Your task to perform on an android device: How do I get to the nearest electronics store? Image 0: 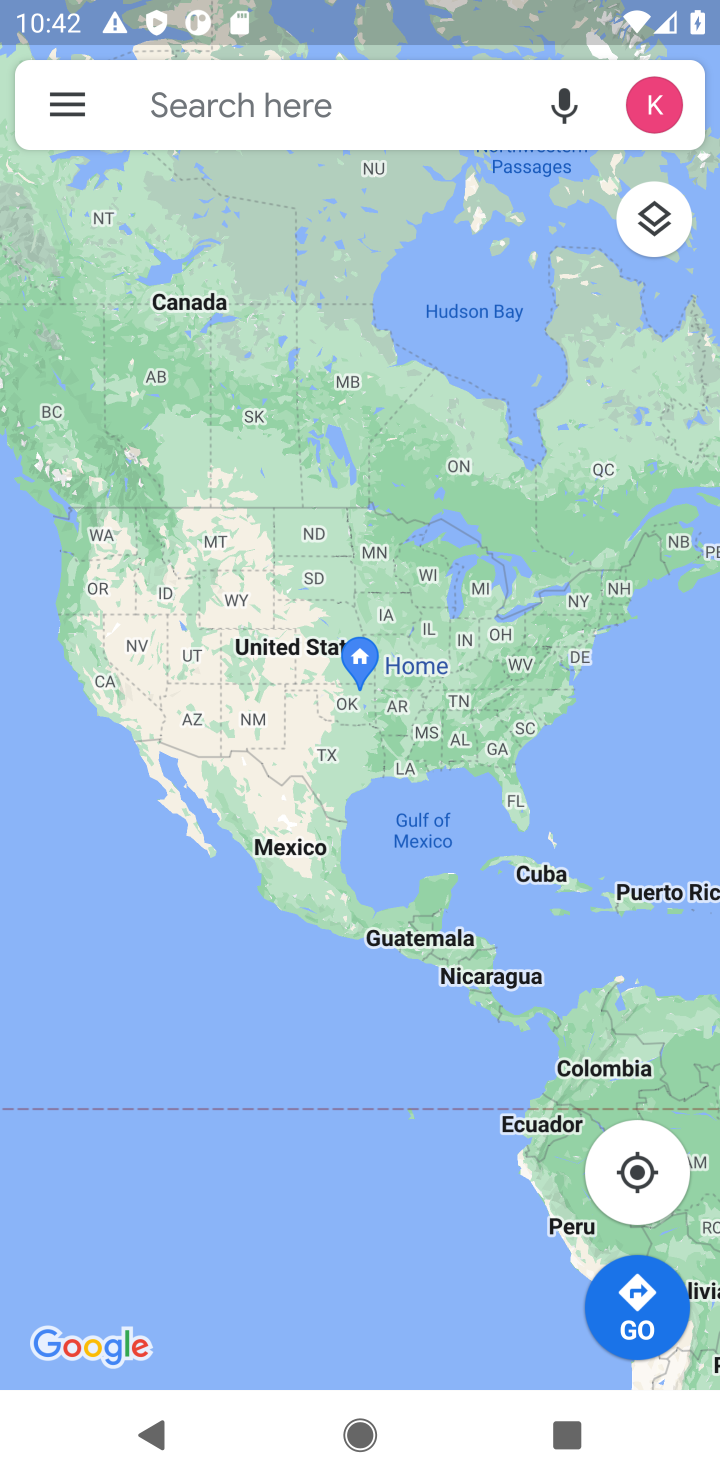
Step 0: press home button
Your task to perform on an android device: How do I get to the nearest electronics store? Image 1: 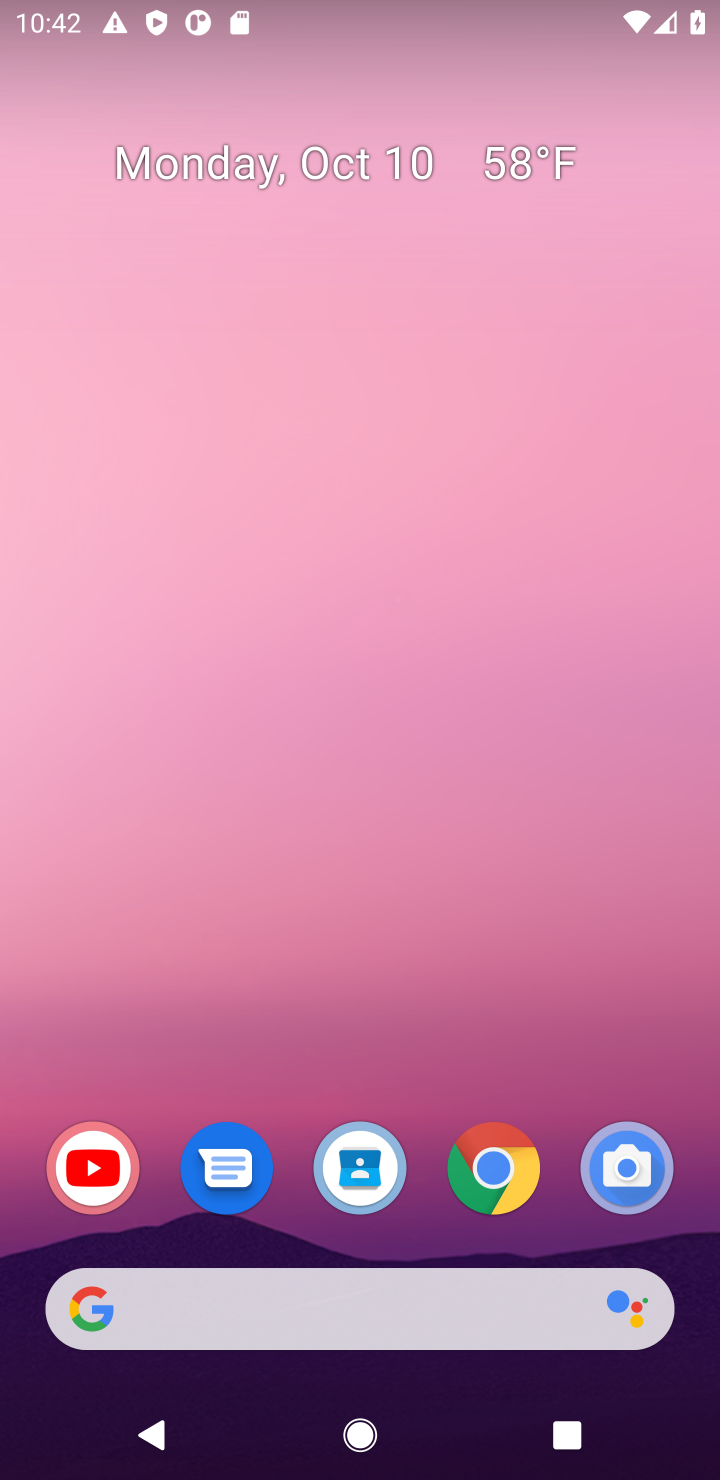
Step 1: click (288, 1302)
Your task to perform on an android device: How do I get to the nearest electronics store? Image 2: 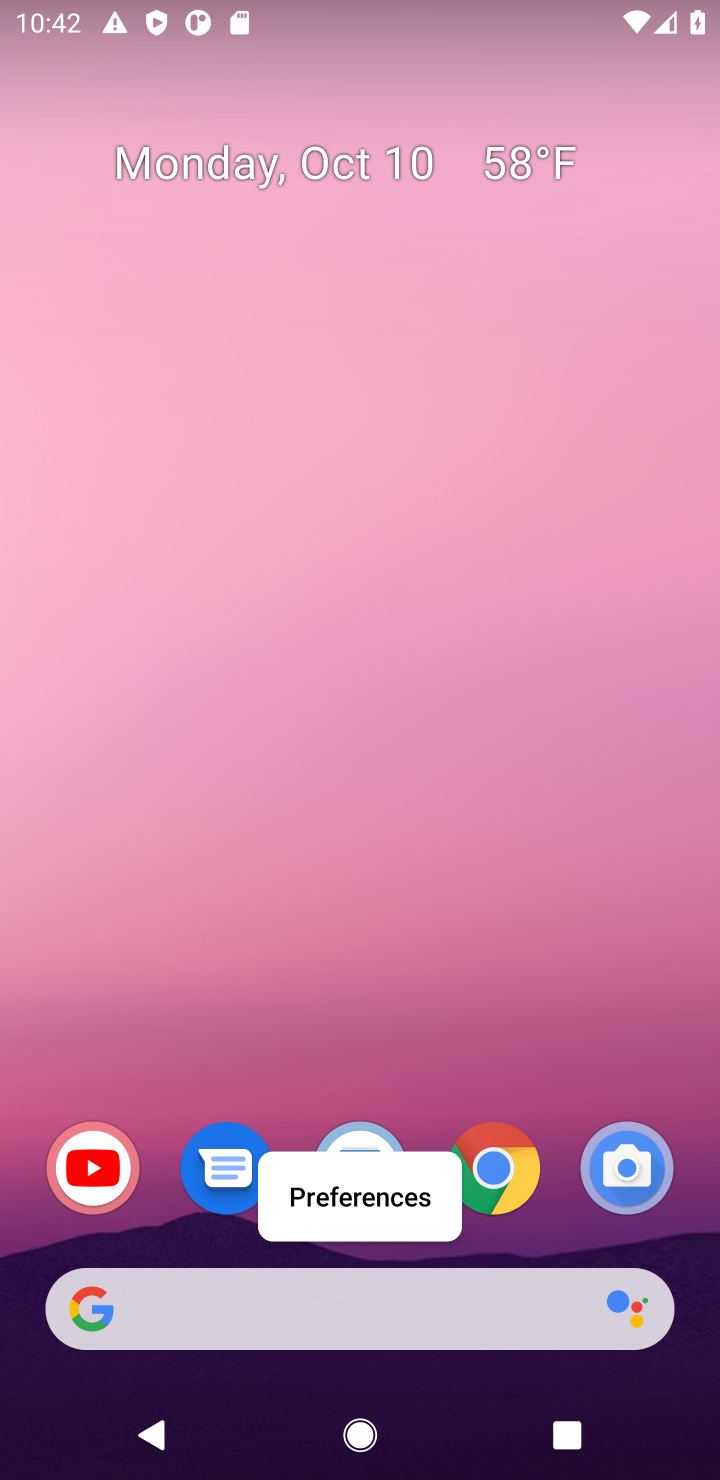
Step 2: click (226, 1308)
Your task to perform on an android device: How do I get to the nearest electronics store? Image 3: 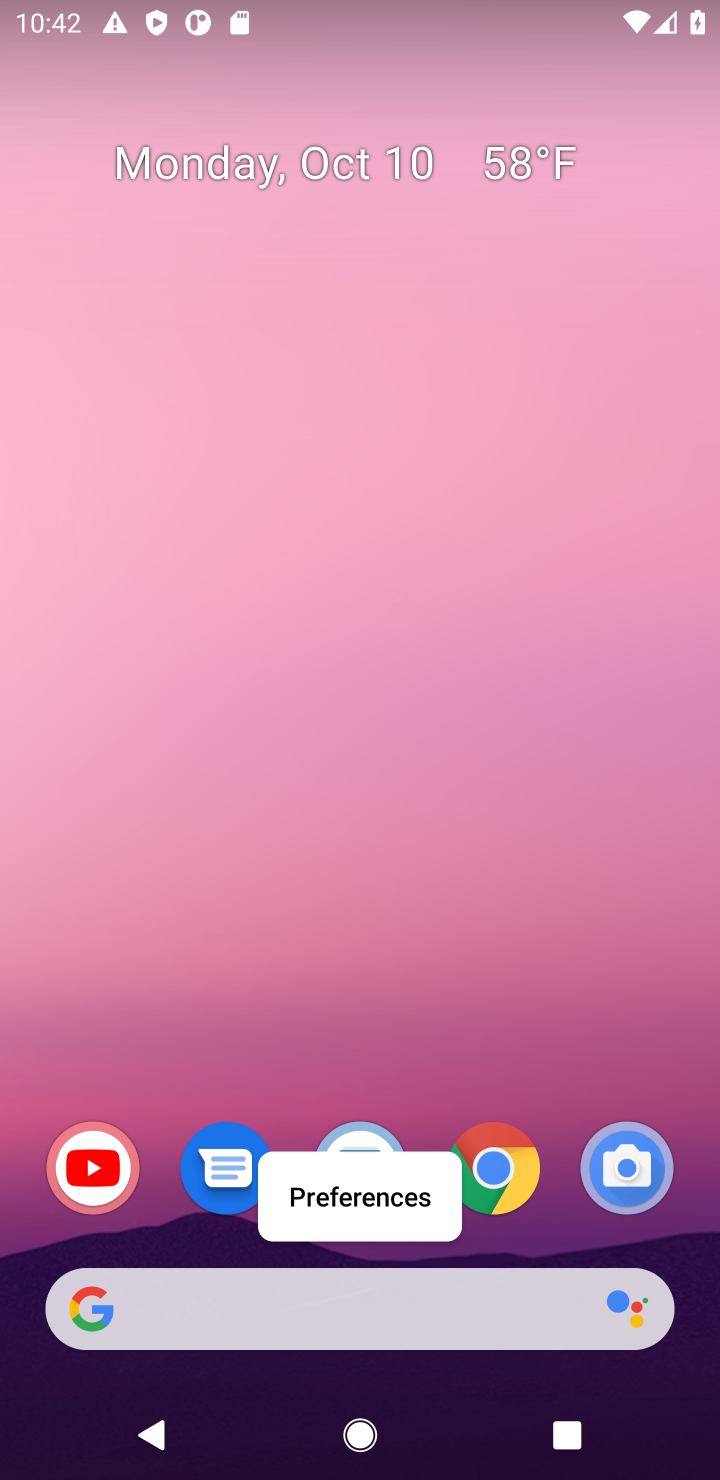
Step 3: click (235, 1313)
Your task to perform on an android device: How do I get to the nearest electronics store? Image 4: 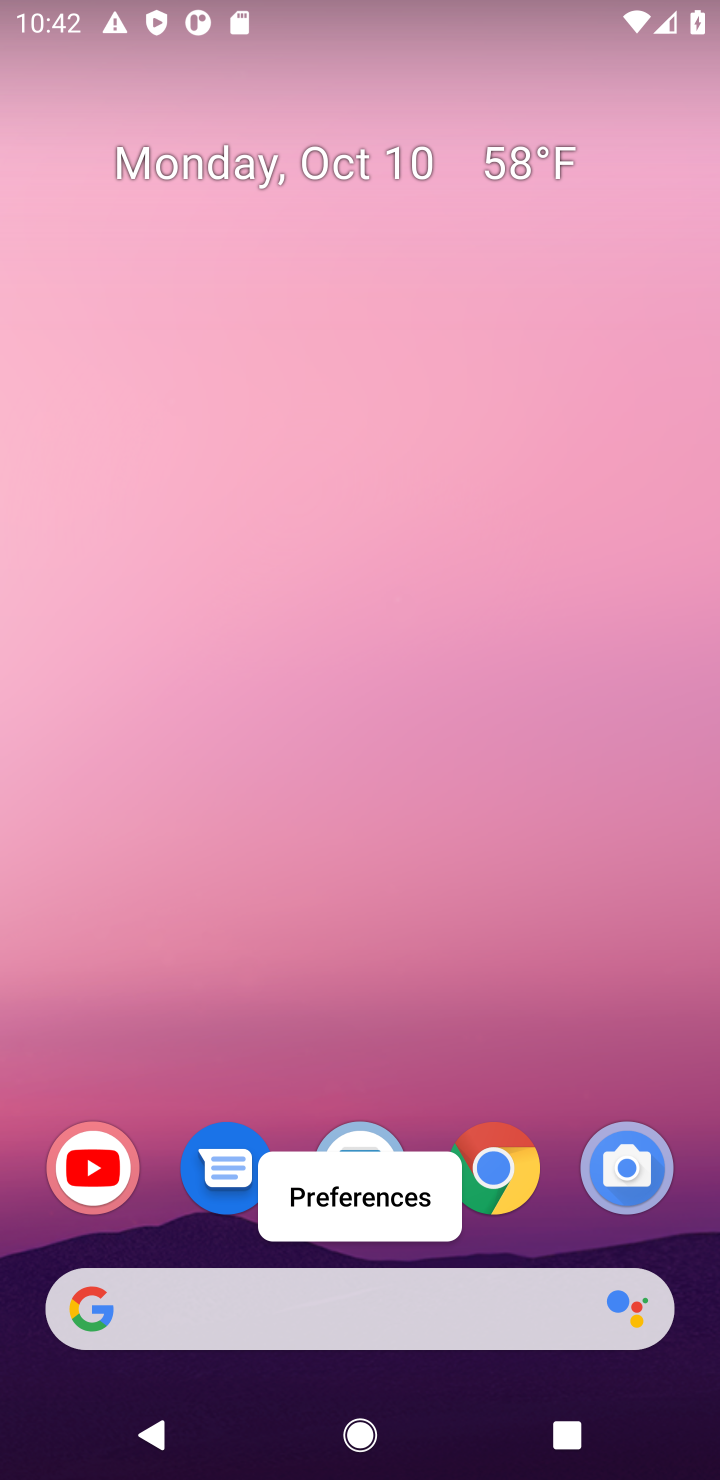
Step 4: click (280, 1307)
Your task to perform on an android device: How do I get to the nearest electronics store? Image 5: 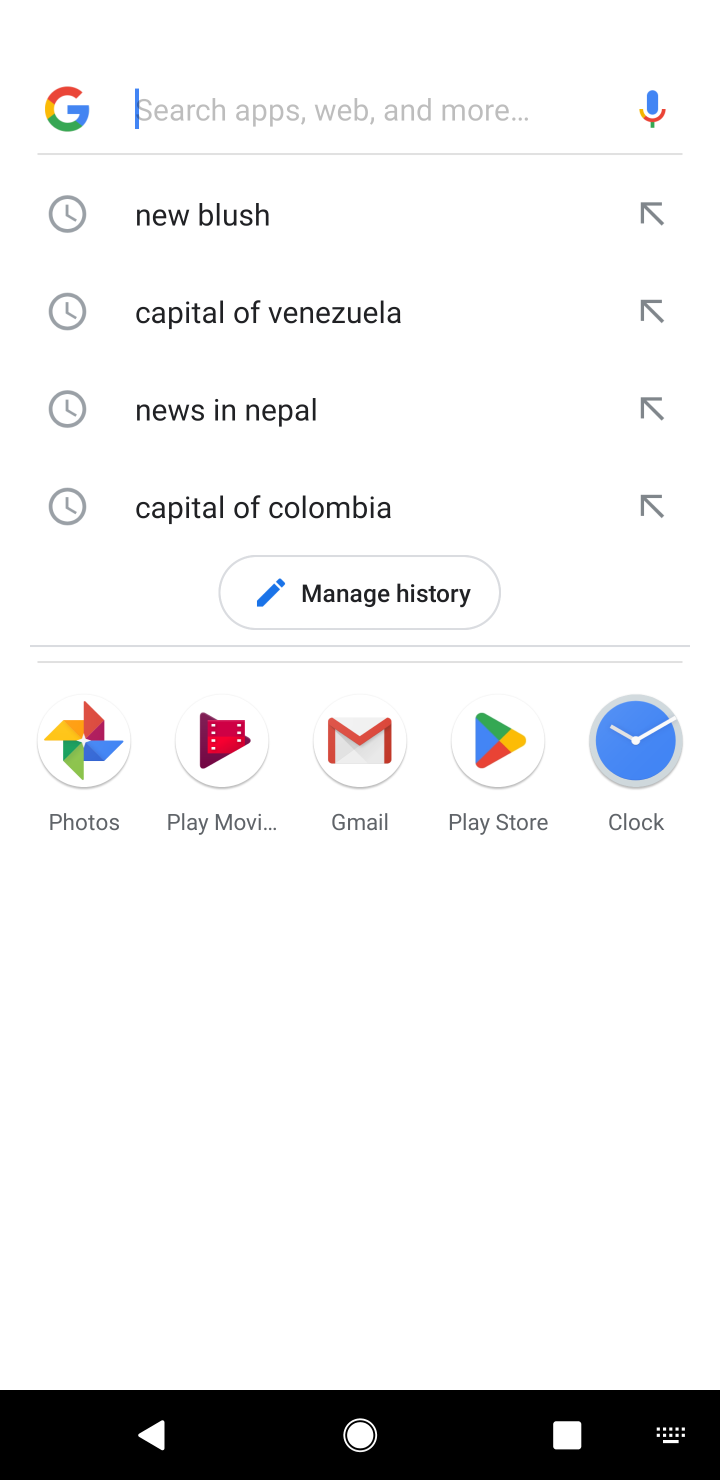
Step 5: type " nearest electronics store"
Your task to perform on an android device: How do I get to the nearest electronics store? Image 6: 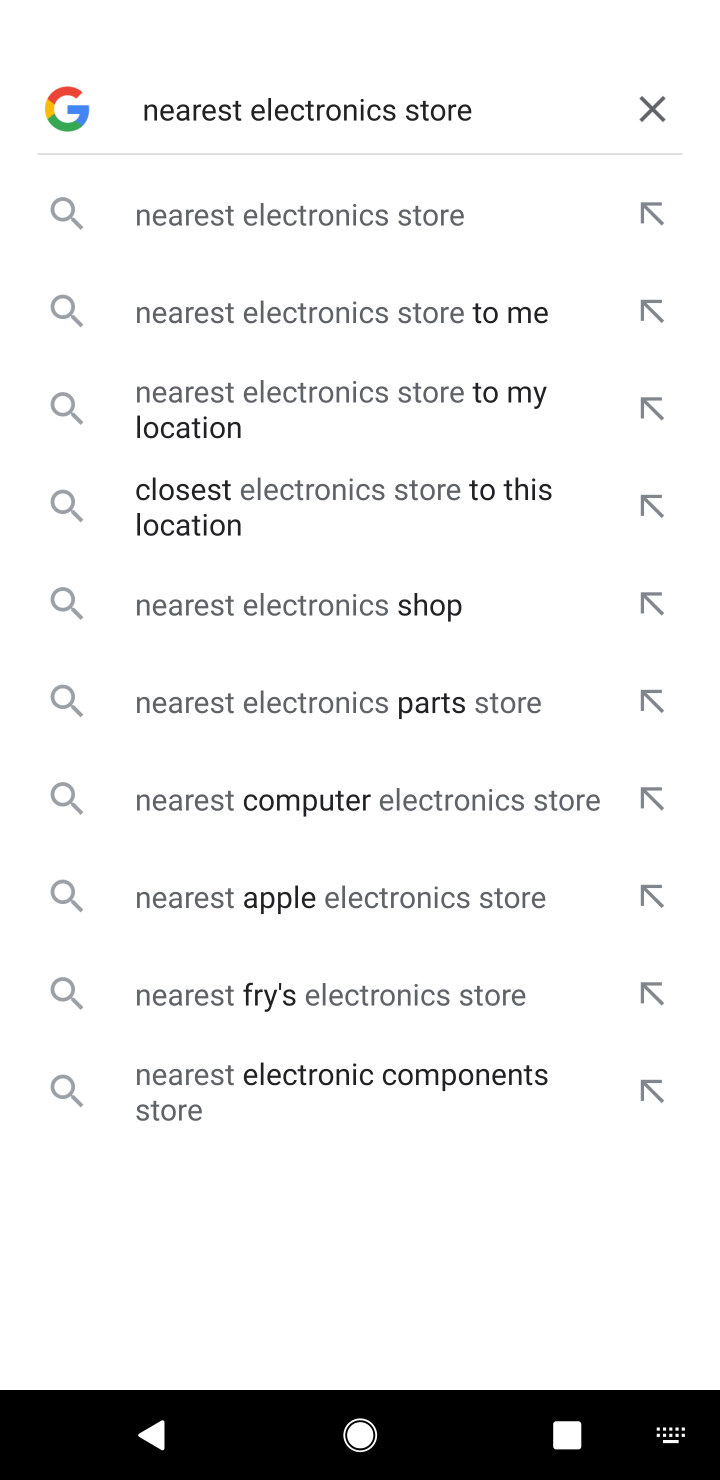
Step 6: type ""
Your task to perform on an android device: How do I get to the nearest electronics store? Image 7: 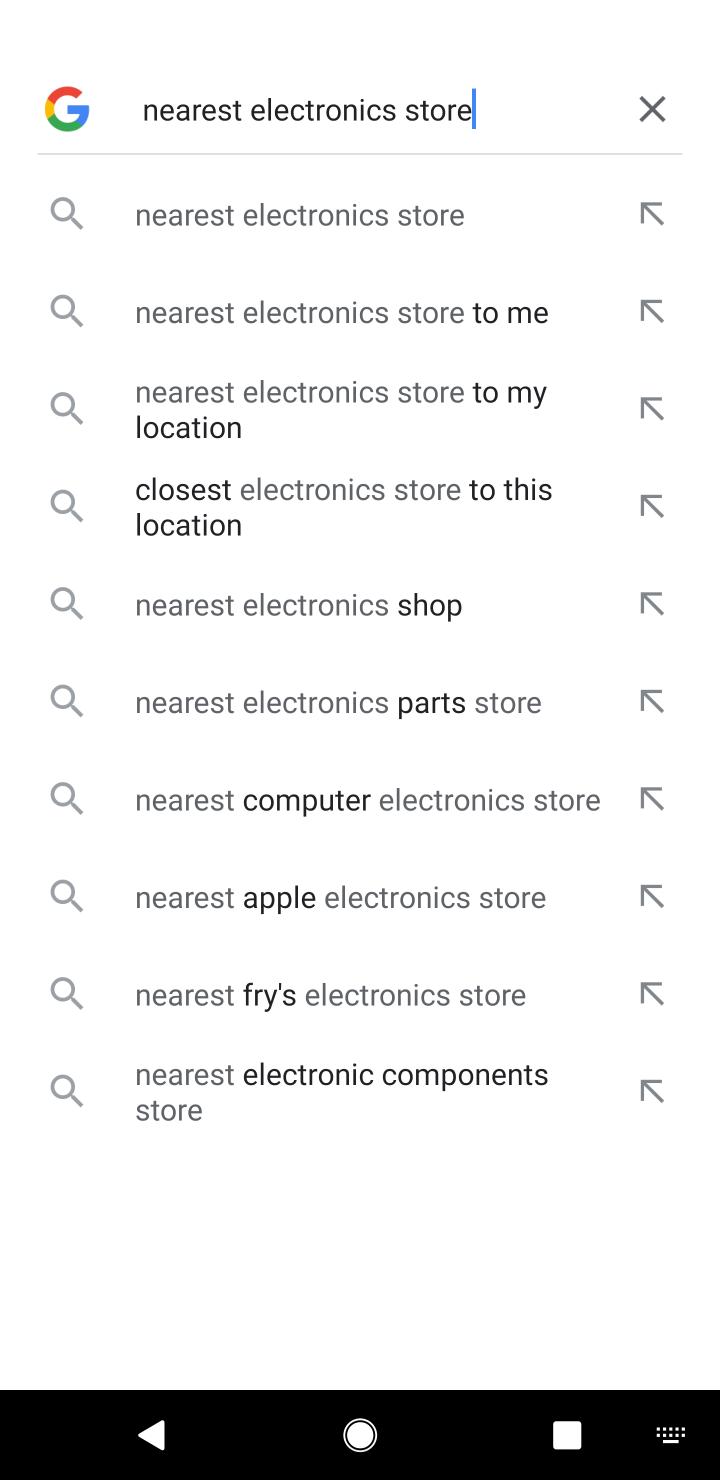
Step 7: click (337, 233)
Your task to perform on an android device: How do I get to the nearest electronics store? Image 8: 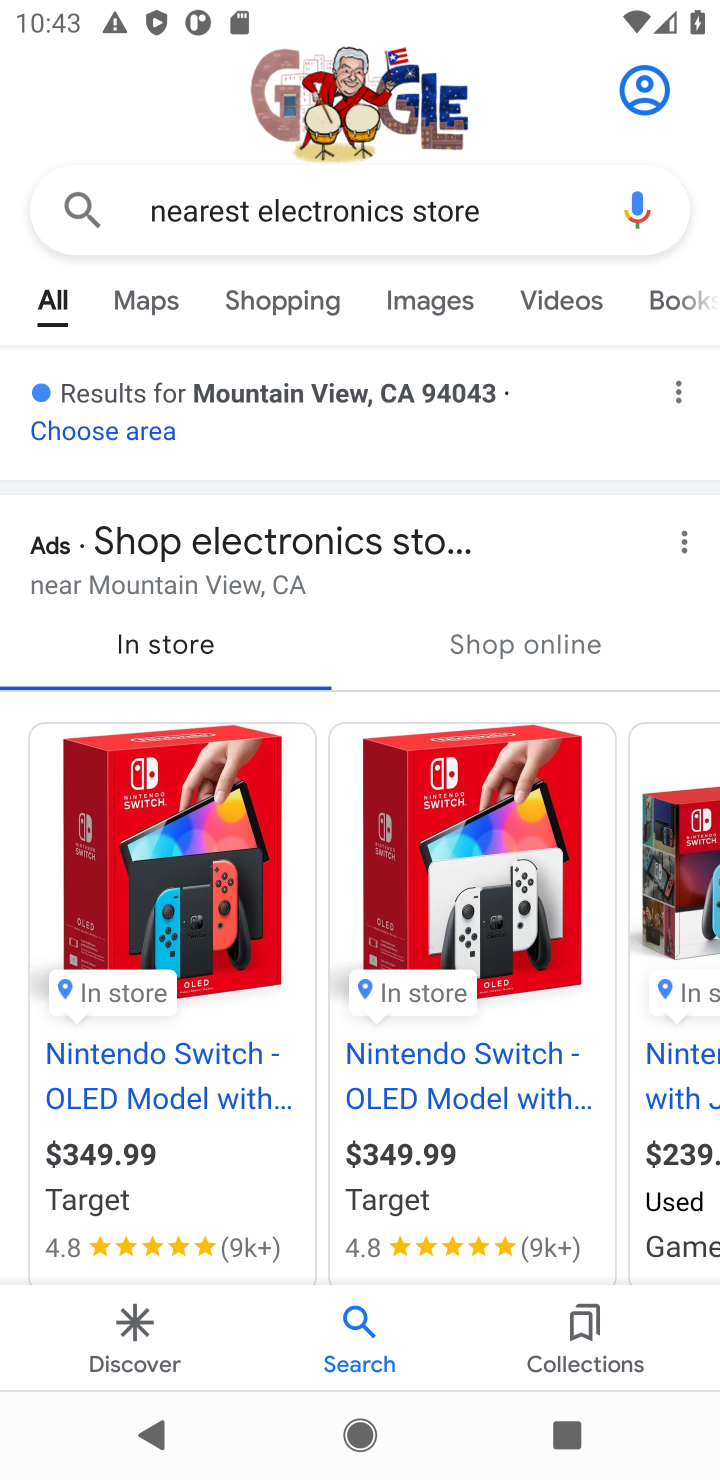
Step 8: drag from (289, 956) to (346, 466)
Your task to perform on an android device: How do I get to the nearest electronics store? Image 9: 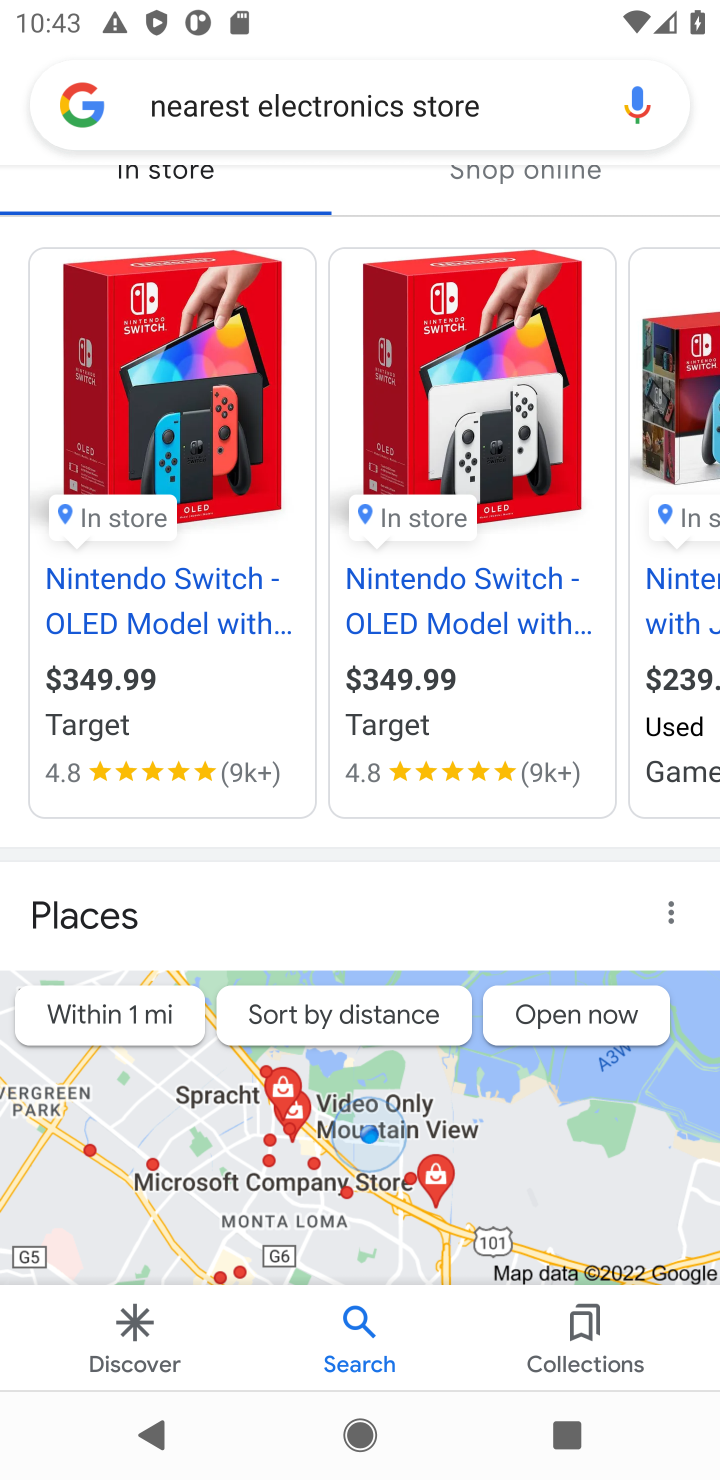
Step 9: drag from (373, 789) to (389, 578)
Your task to perform on an android device: How do I get to the nearest electronics store? Image 10: 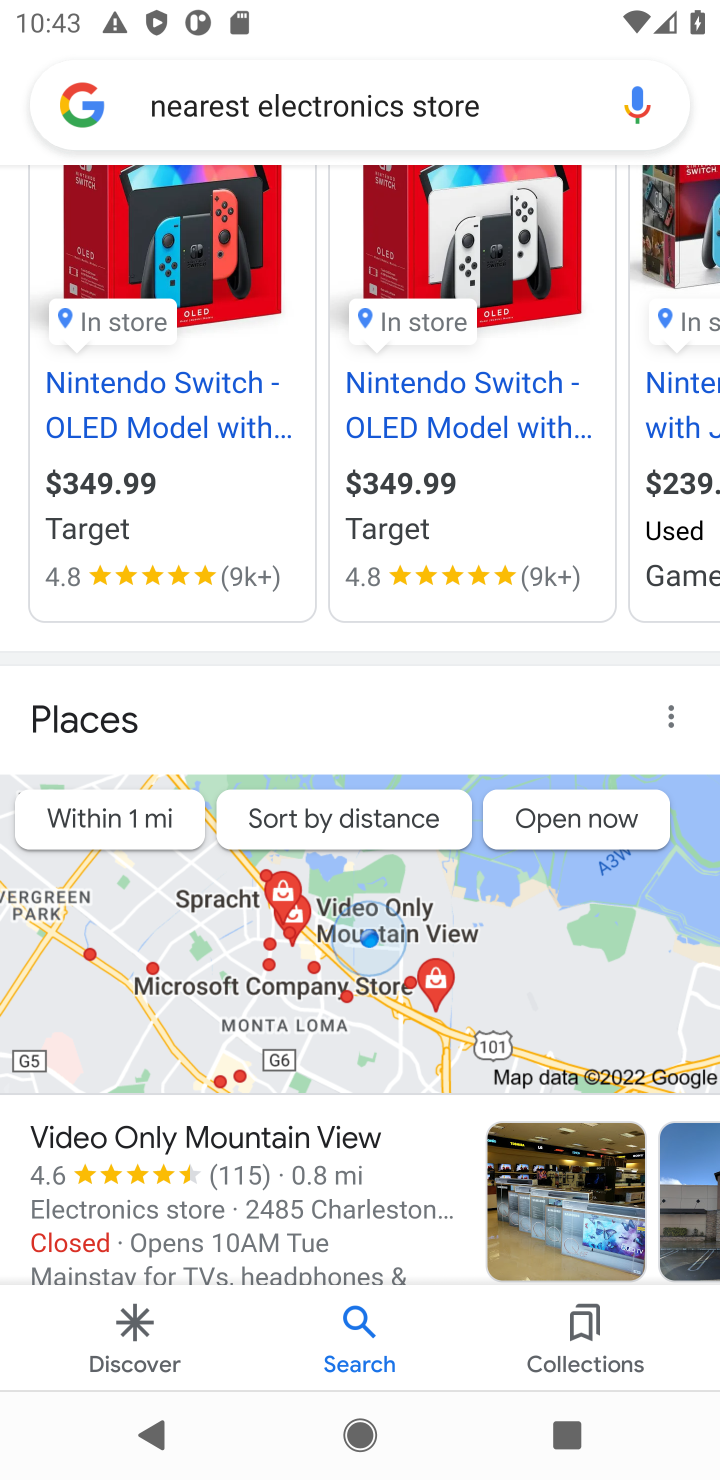
Step 10: drag from (378, 964) to (438, 598)
Your task to perform on an android device: How do I get to the nearest electronics store? Image 11: 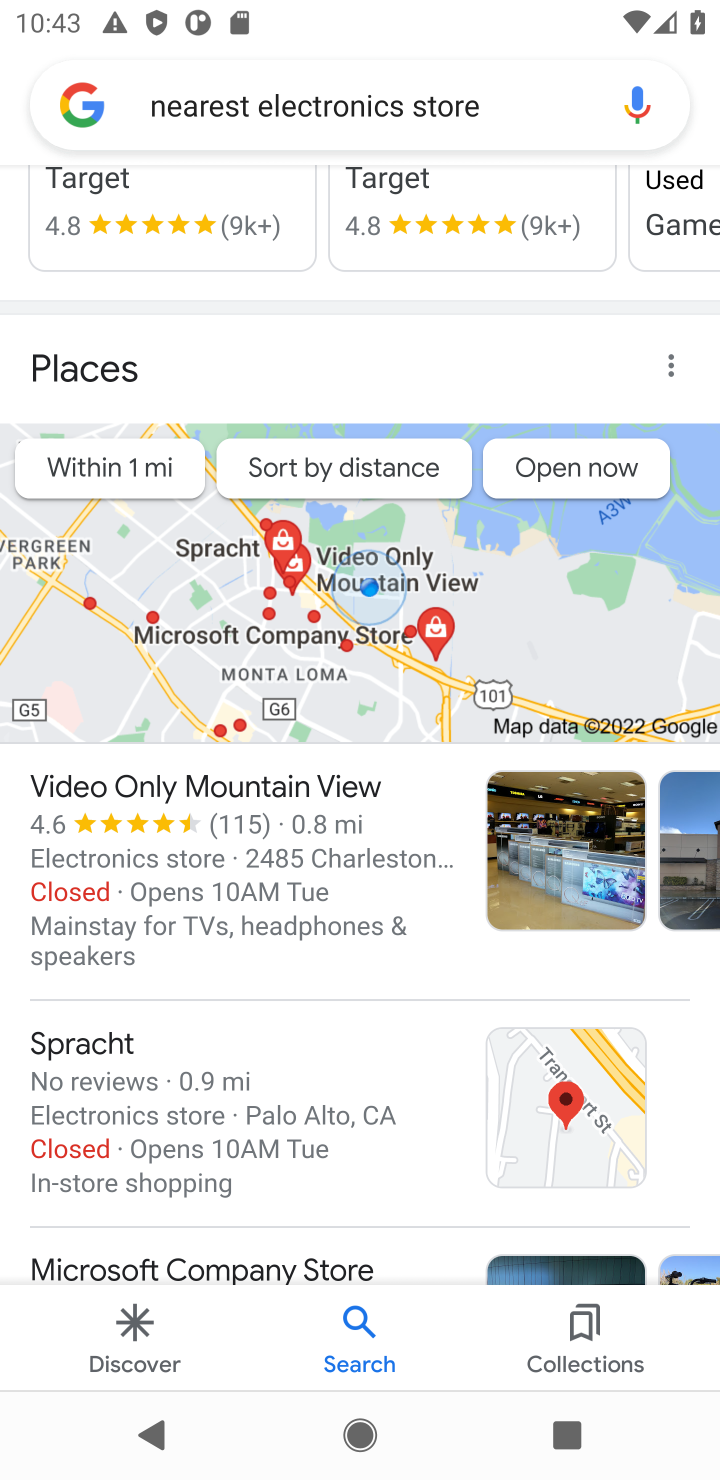
Step 11: click (312, 812)
Your task to perform on an android device: How do I get to the nearest electronics store? Image 12: 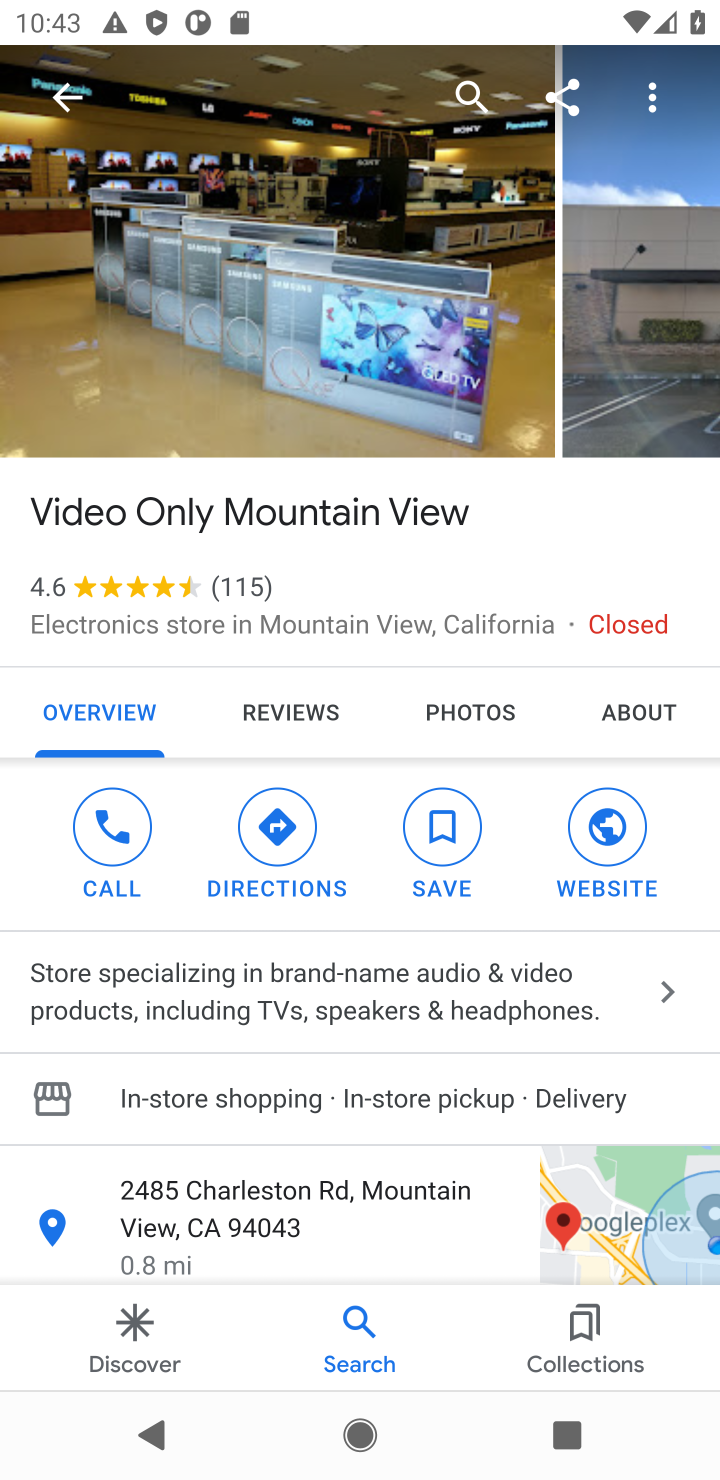
Step 12: click (288, 822)
Your task to perform on an android device: How do I get to the nearest electronics store? Image 13: 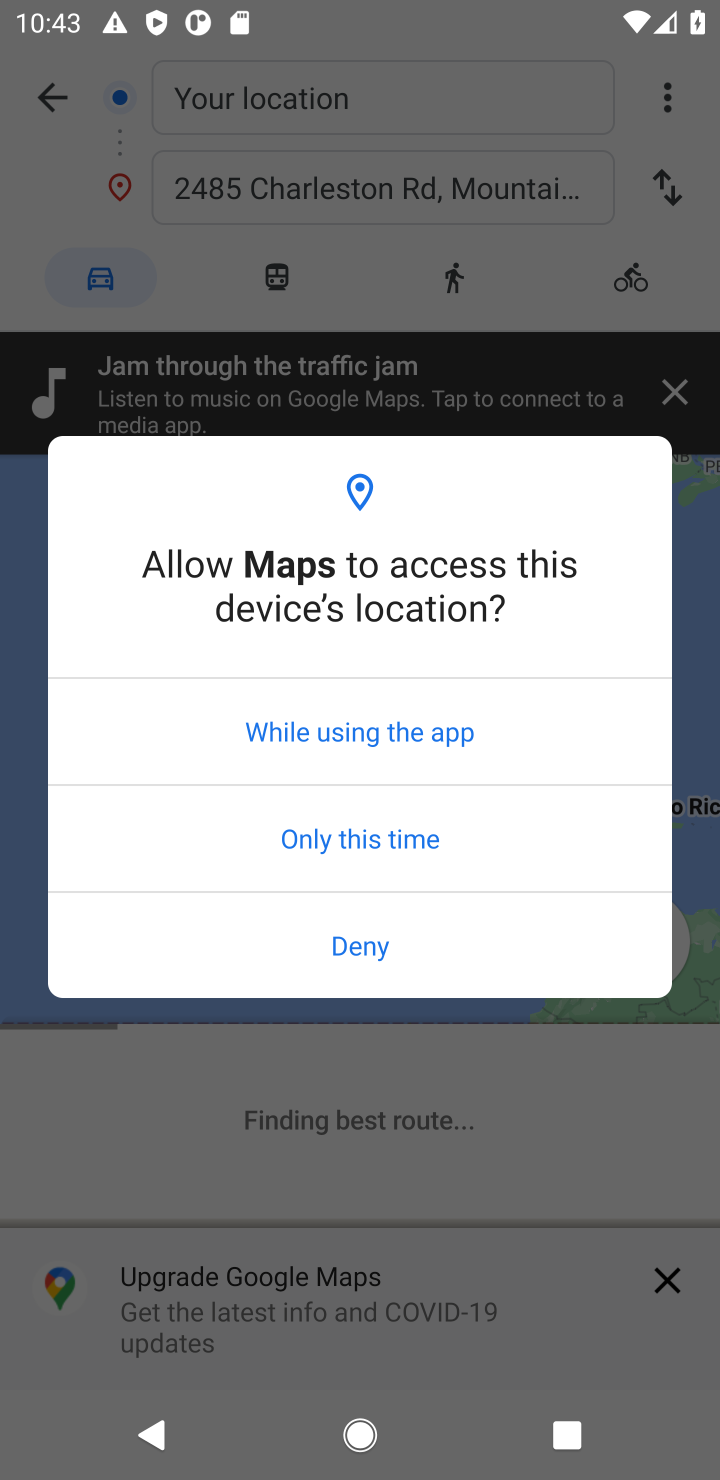
Step 13: task complete